Your task to perform on an android device: Open the calendar and show me this week's events? Image 0: 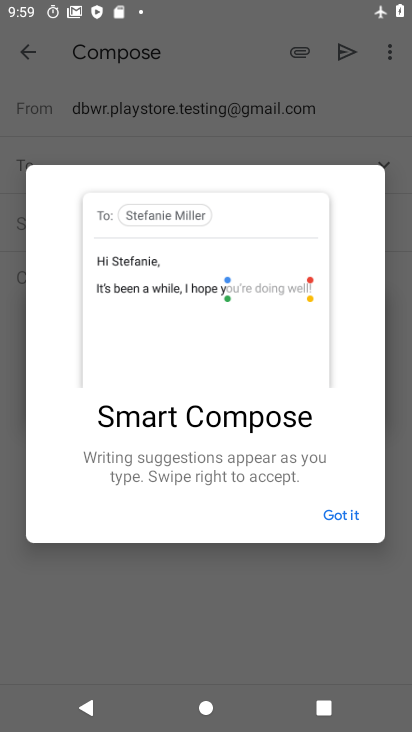
Step 0: press home button
Your task to perform on an android device: Open the calendar and show me this week's events? Image 1: 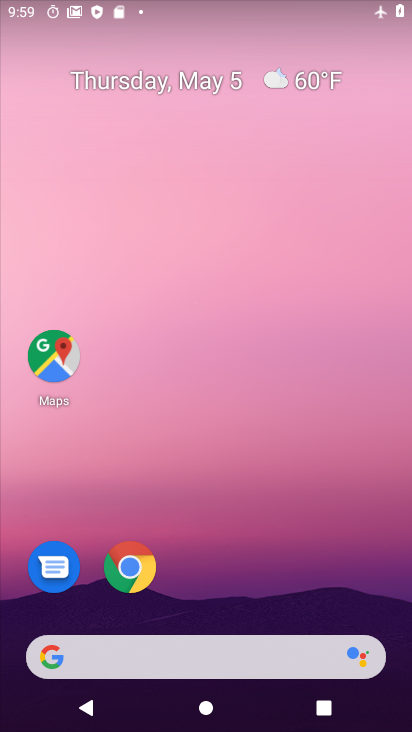
Step 1: drag from (239, 489) to (260, 64)
Your task to perform on an android device: Open the calendar and show me this week's events? Image 2: 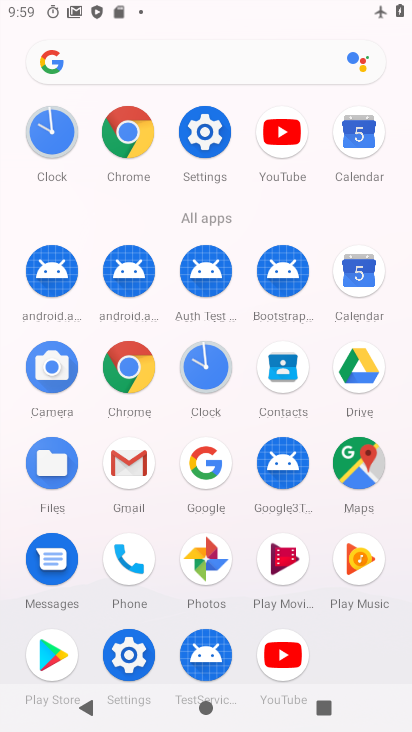
Step 2: click (365, 133)
Your task to perform on an android device: Open the calendar and show me this week's events? Image 3: 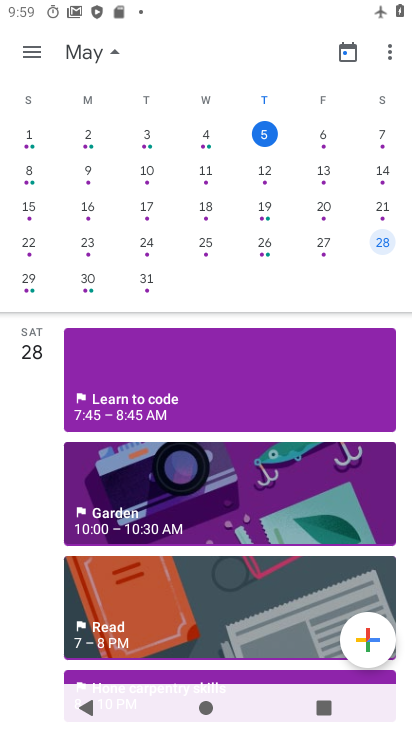
Step 3: click (321, 138)
Your task to perform on an android device: Open the calendar and show me this week's events? Image 4: 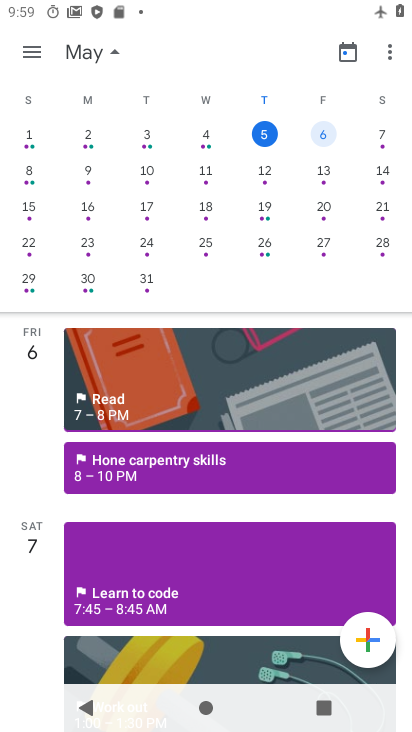
Step 4: task complete